Your task to perform on an android device: Open calendar and show me the fourth week of next month Image 0: 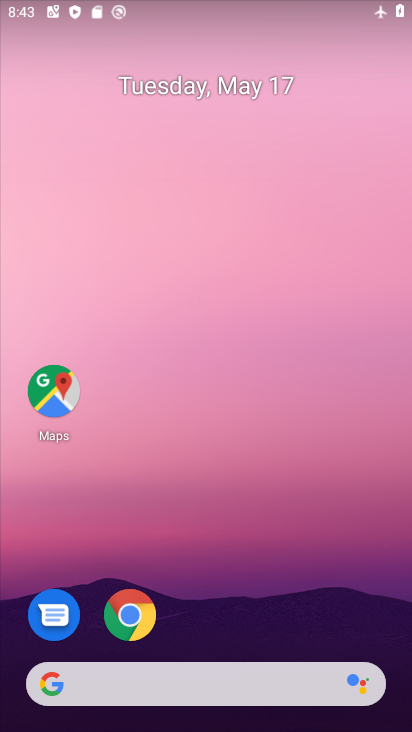
Step 0: drag from (274, 581) to (286, 191)
Your task to perform on an android device: Open calendar and show me the fourth week of next month Image 1: 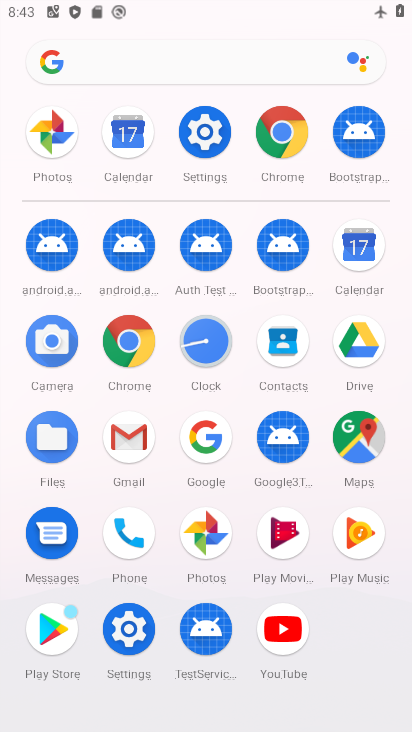
Step 1: click (367, 247)
Your task to perform on an android device: Open calendar and show me the fourth week of next month Image 2: 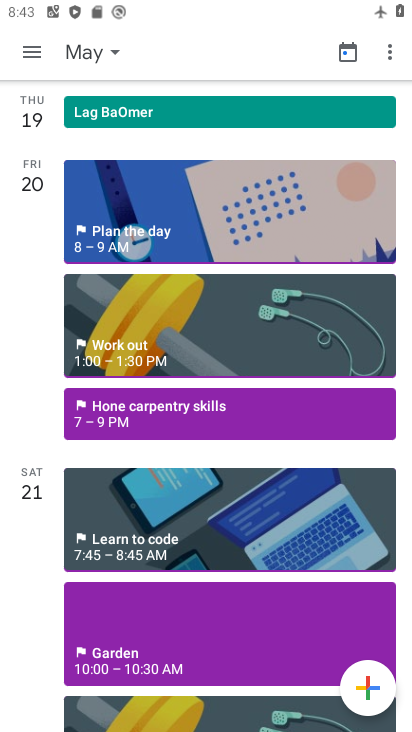
Step 2: click (26, 53)
Your task to perform on an android device: Open calendar and show me the fourth week of next month Image 3: 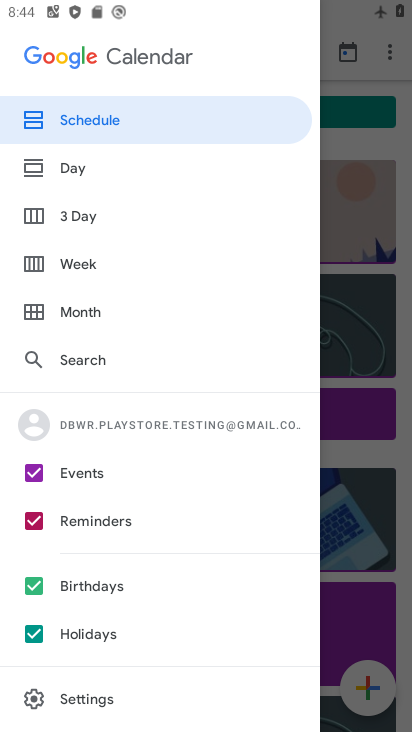
Step 3: click (95, 303)
Your task to perform on an android device: Open calendar and show me the fourth week of next month Image 4: 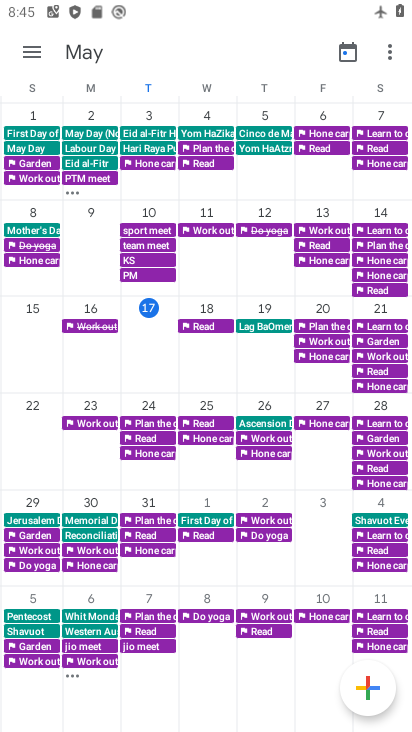
Step 4: task complete